Your task to perform on an android device: Open calendar and show me the second week of next month Image 0: 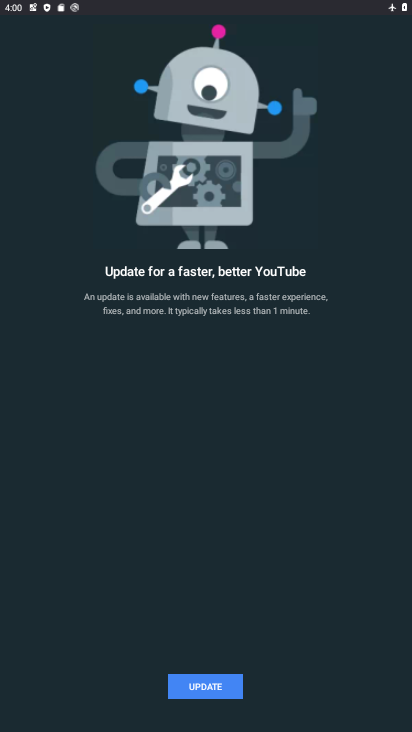
Step 0: press home button
Your task to perform on an android device: Open calendar and show me the second week of next month Image 1: 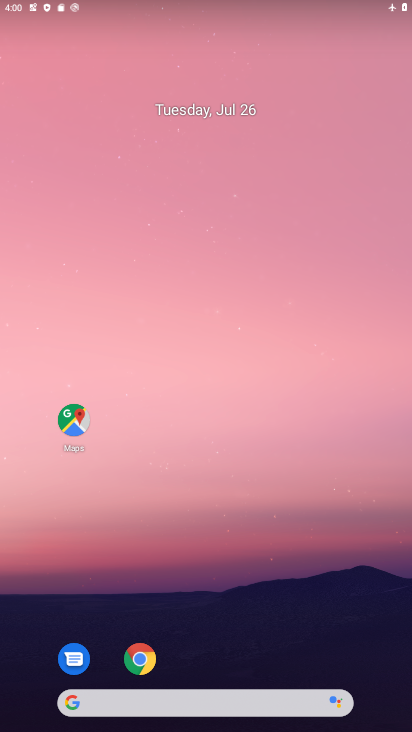
Step 1: drag from (239, 576) to (196, 38)
Your task to perform on an android device: Open calendar and show me the second week of next month Image 2: 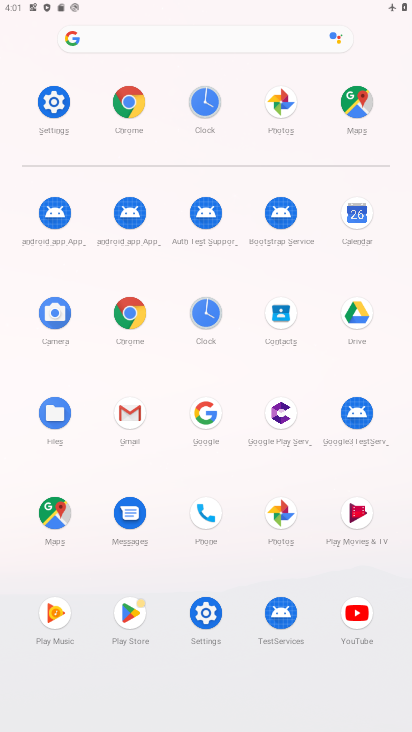
Step 2: click (367, 216)
Your task to perform on an android device: Open calendar and show me the second week of next month Image 3: 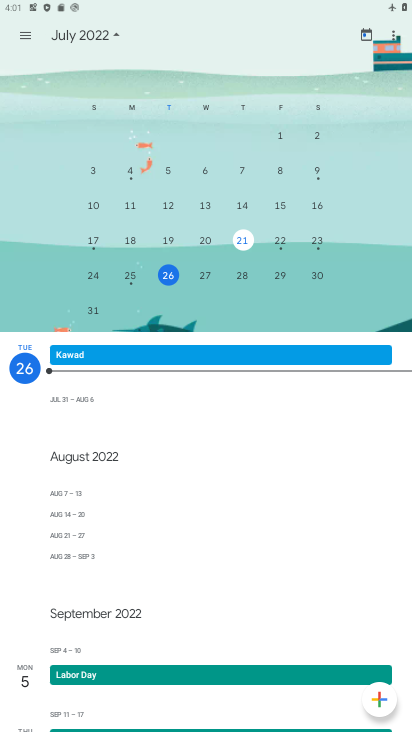
Step 3: drag from (295, 206) to (12, 259)
Your task to perform on an android device: Open calendar and show me the second week of next month Image 4: 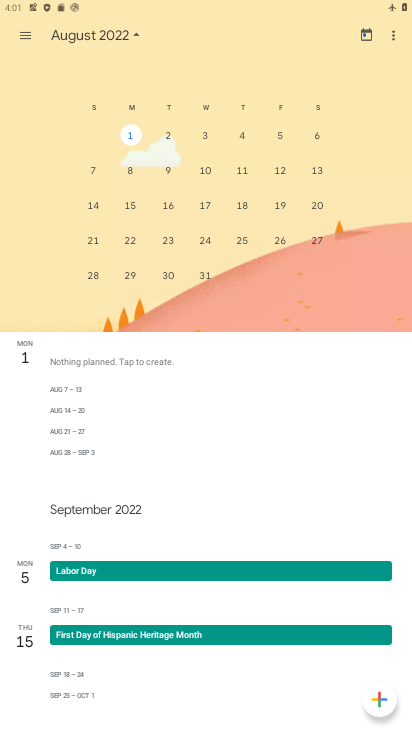
Step 4: click (84, 206)
Your task to perform on an android device: Open calendar and show me the second week of next month Image 5: 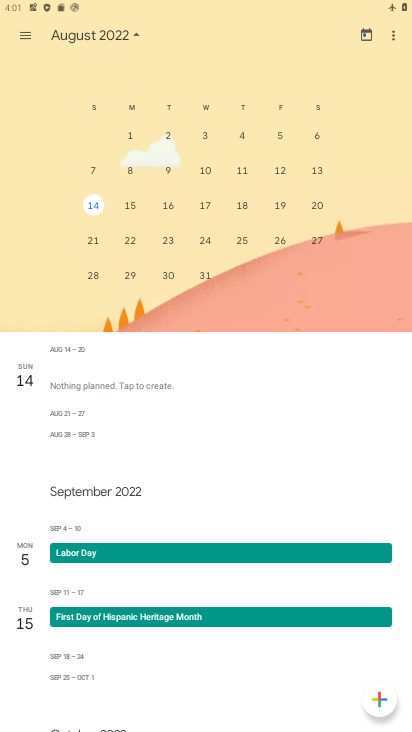
Step 5: task complete